Your task to perform on an android device: turn off airplane mode Image 0: 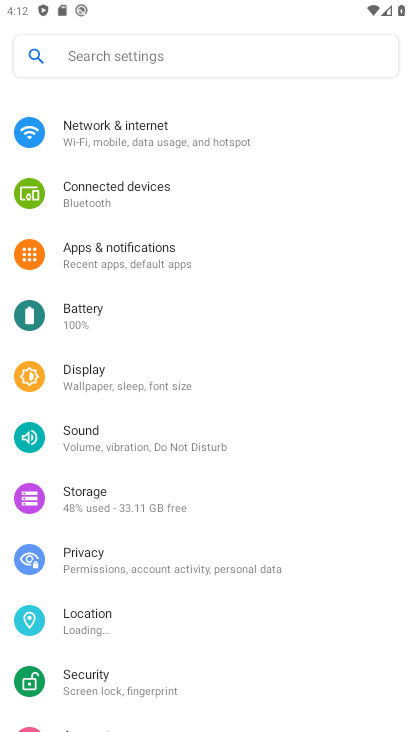
Step 0: press home button
Your task to perform on an android device: turn off airplane mode Image 1: 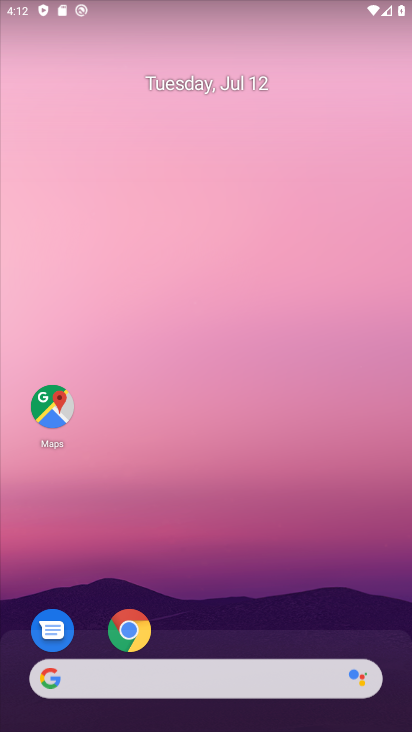
Step 1: drag from (223, 668) to (335, 110)
Your task to perform on an android device: turn off airplane mode Image 2: 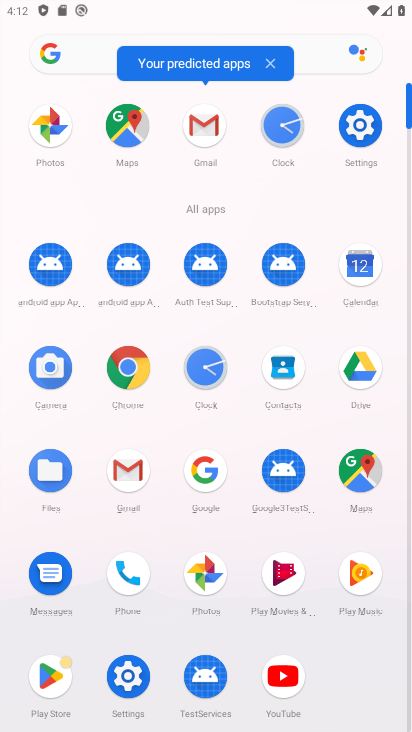
Step 2: click (135, 672)
Your task to perform on an android device: turn off airplane mode Image 3: 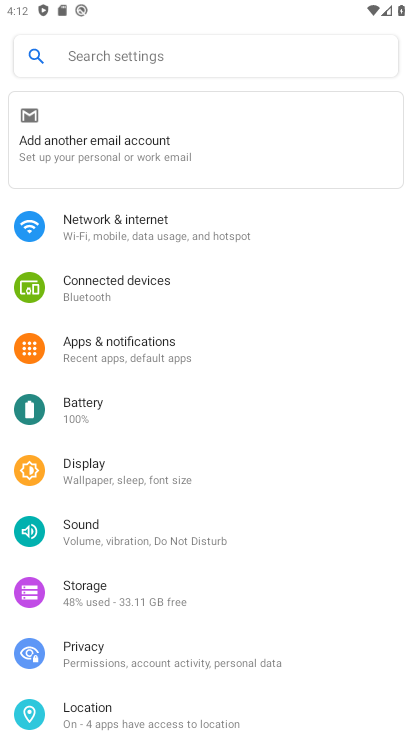
Step 3: click (164, 236)
Your task to perform on an android device: turn off airplane mode Image 4: 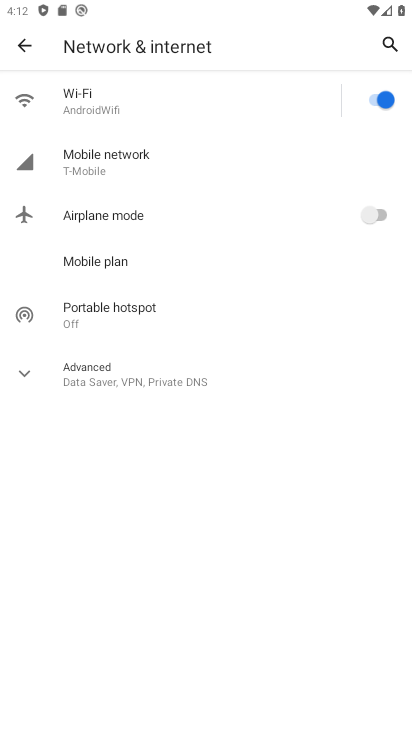
Step 4: task complete